Your task to perform on an android device: Open location settings Image 0: 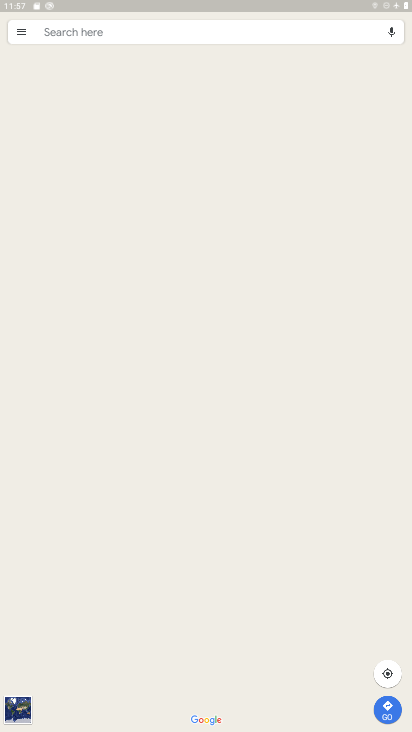
Step 0: press home button
Your task to perform on an android device: Open location settings Image 1: 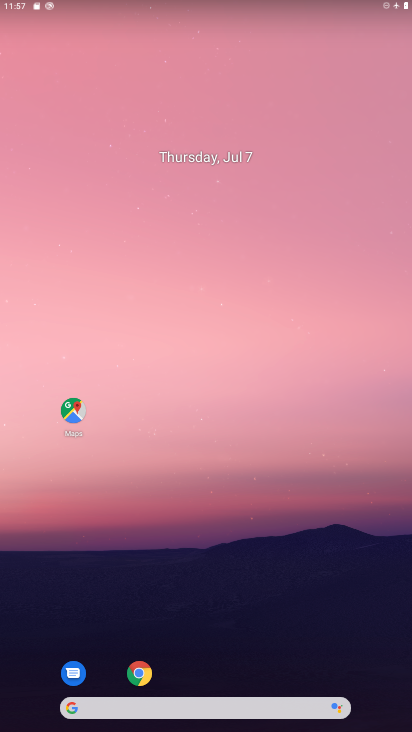
Step 1: click (186, 474)
Your task to perform on an android device: Open location settings Image 2: 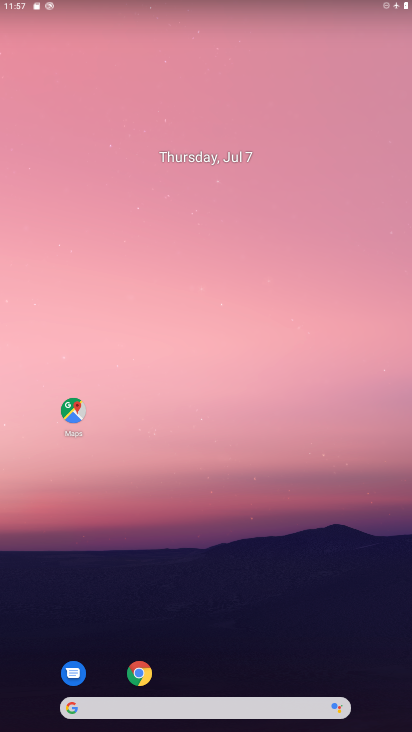
Step 2: drag from (252, 493) to (211, 212)
Your task to perform on an android device: Open location settings Image 3: 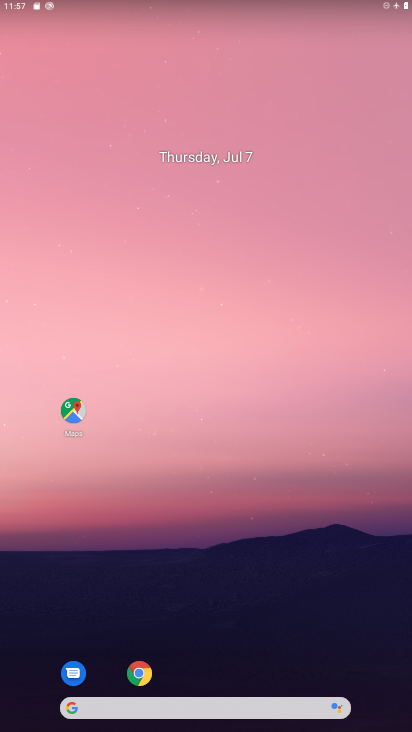
Step 3: drag from (234, 639) to (204, 347)
Your task to perform on an android device: Open location settings Image 4: 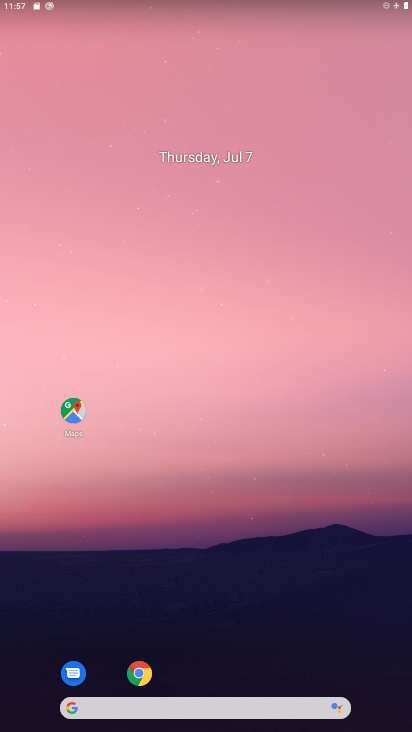
Step 4: drag from (225, 601) to (200, 181)
Your task to perform on an android device: Open location settings Image 5: 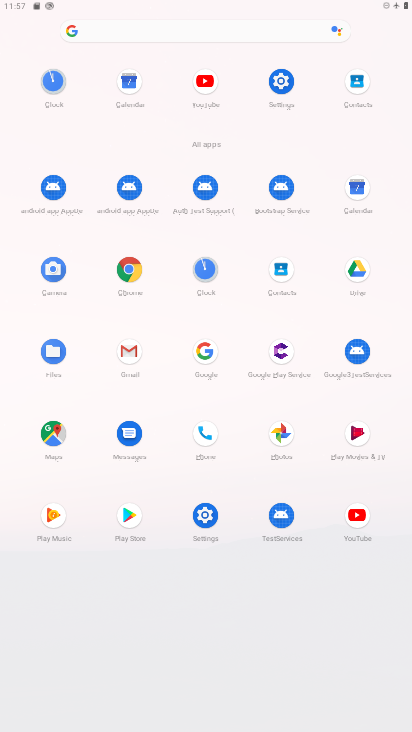
Step 5: click (201, 510)
Your task to perform on an android device: Open location settings Image 6: 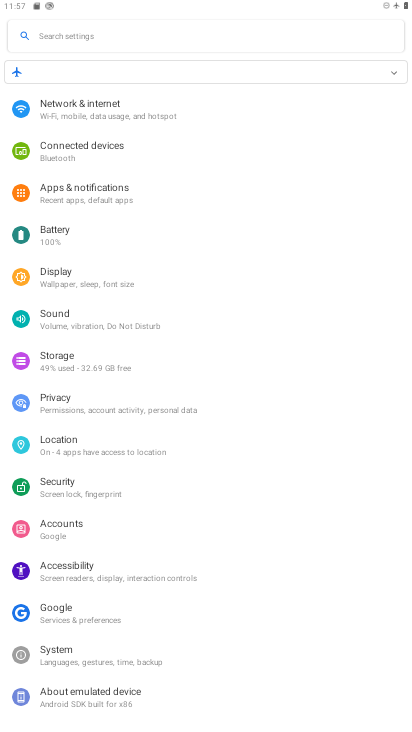
Step 6: click (84, 453)
Your task to perform on an android device: Open location settings Image 7: 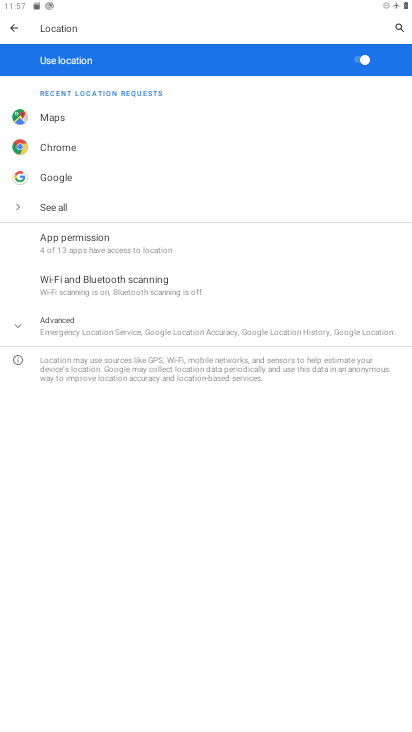
Step 7: task complete